Your task to perform on an android device: turn off location history Image 0: 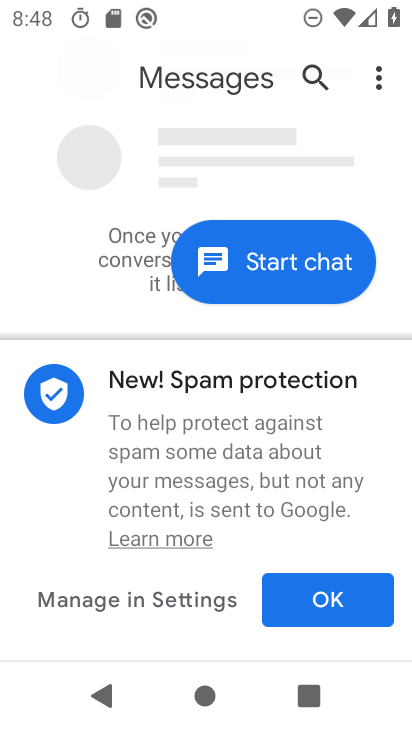
Step 0: press home button
Your task to perform on an android device: turn off location history Image 1: 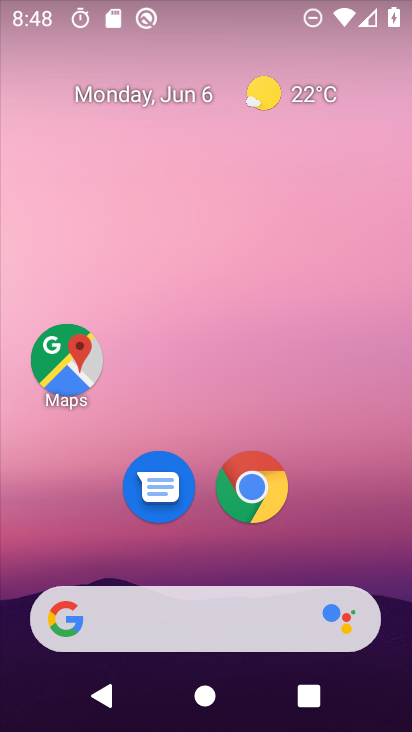
Step 1: drag from (390, 638) to (331, 34)
Your task to perform on an android device: turn off location history Image 2: 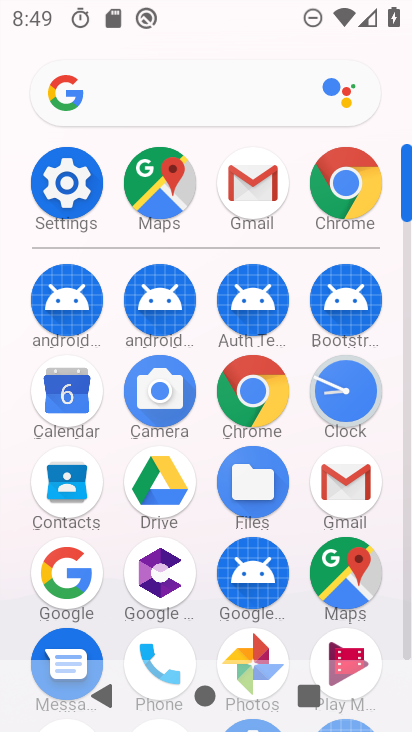
Step 2: click (79, 179)
Your task to perform on an android device: turn off location history Image 3: 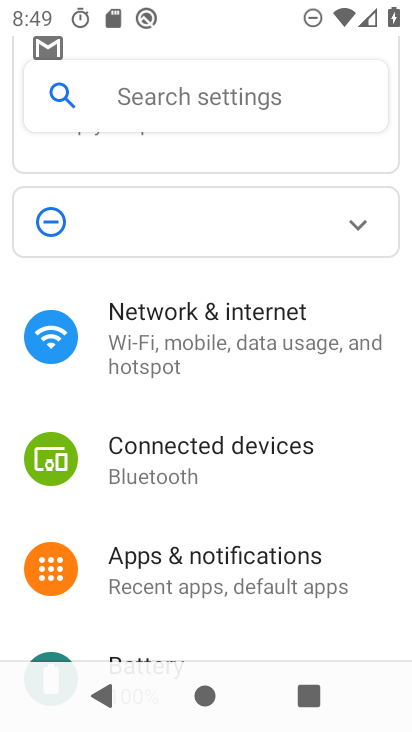
Step 3: drag from (167, 605) to (224, 71)
Your task to perform on an android device: turn off location history Image 4: 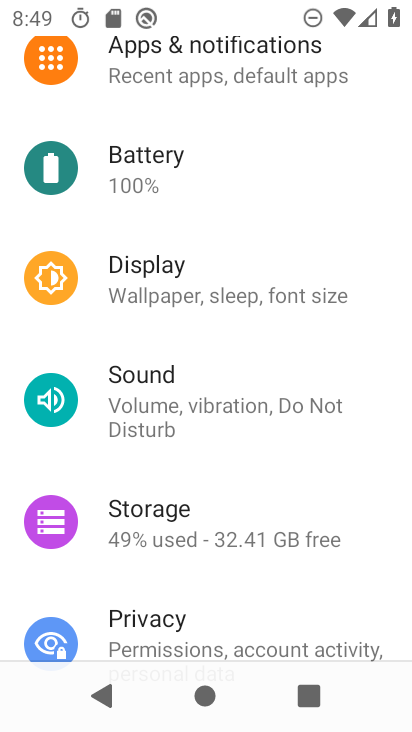
Step 4: drag from (188, 600) to (207, 563)
Your task to perform on an android device: turn off location history Image 5: 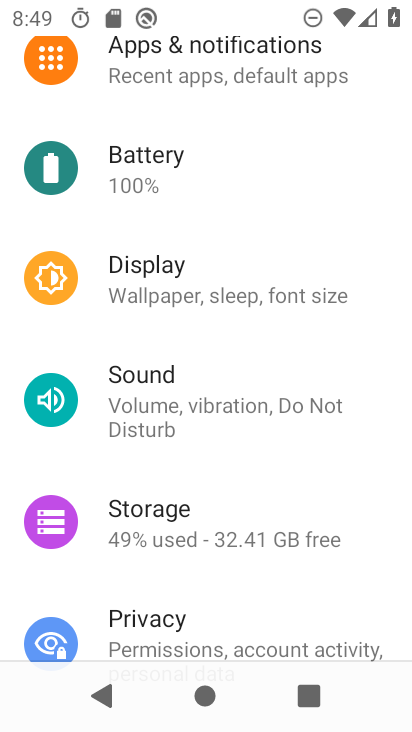
Step 5: drag from (258, 150) to (251, 101)
Your task to perform on an android device: turn off location history Image 6: 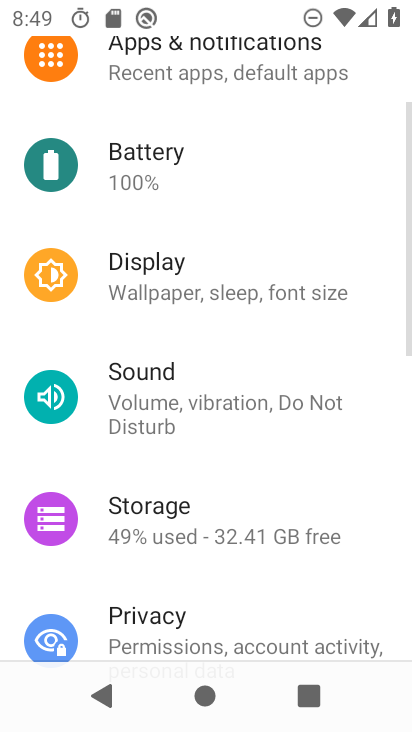
Step 6: drag from (129, 540) to (224, 102)
Your task to perform on an android device: turn off location history Image 7: 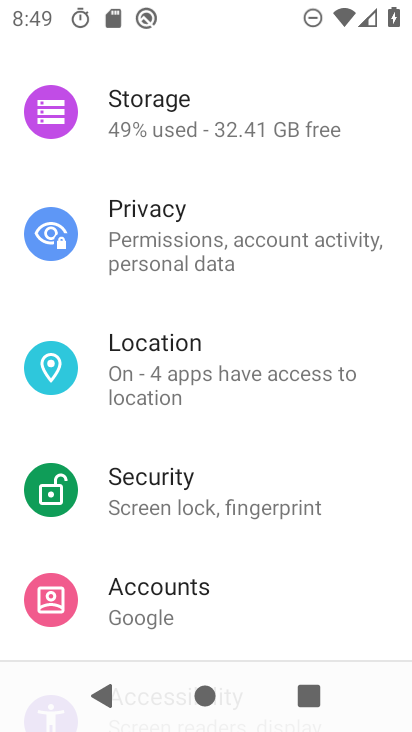
Step 7: click (141, 406)
Your task to perform on an android device: turn off location history Image 8: 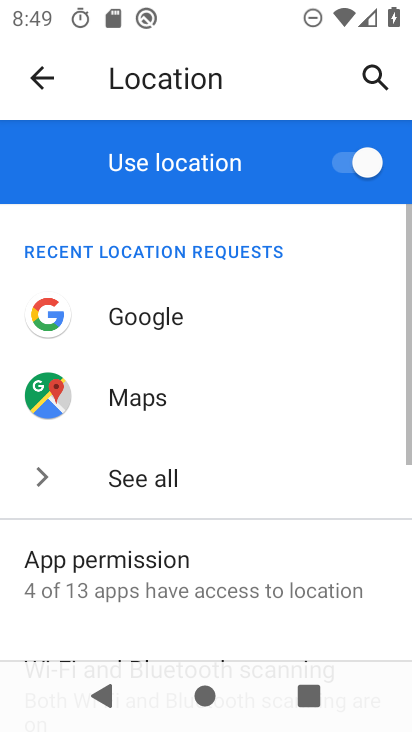
Step 8: drag from (211, 604) to (249, 229)
Your task to perform on an android device: turn off location history Image 9: 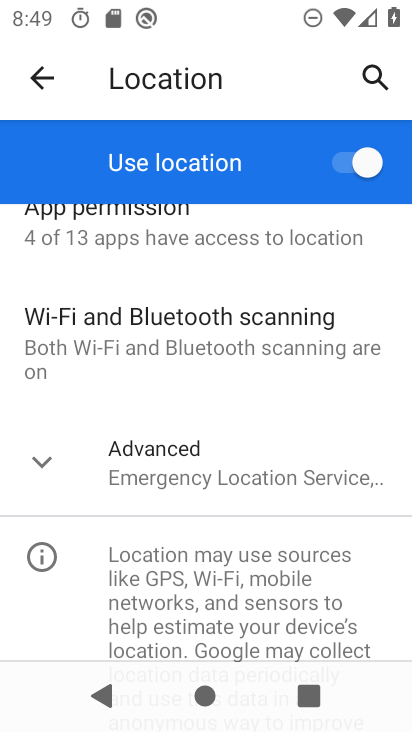
Step 9: click (157, 456)
Your task to perform on an android device: turn off location history Image 10: 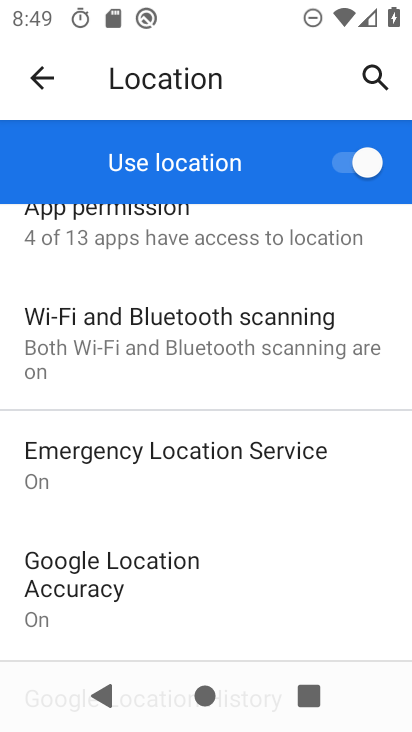
Step 10: drag from (190, 605) to (236, 338)
Your task to perform on an android device: turn off location history Image 11: 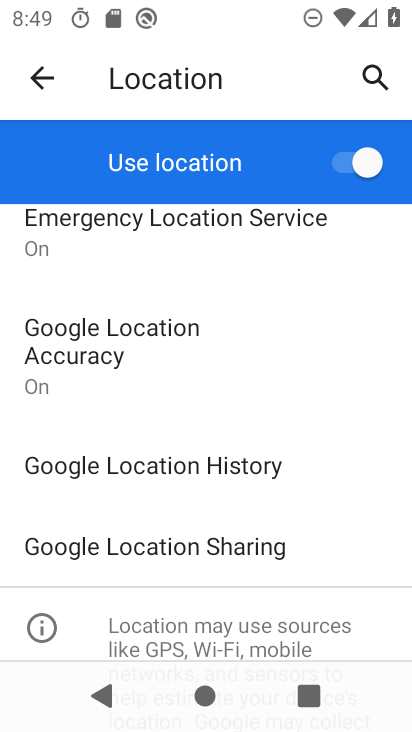
Step 11: click (220, 466)
Your task to perform on an android device: turn off location history Image 12: 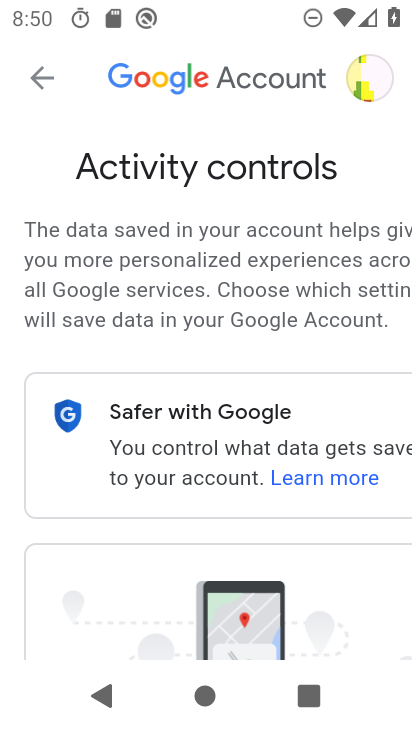
Step 12: drag from (335, 598) to (285, 163)
Your task to perform on an android device: turn off location history Image 13: 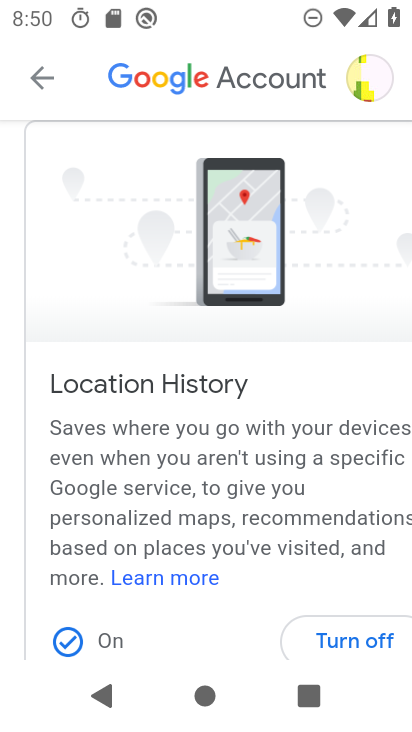
Step 13: click (368, 632)
Your task to perform on an android device: turn off location history Image 14: 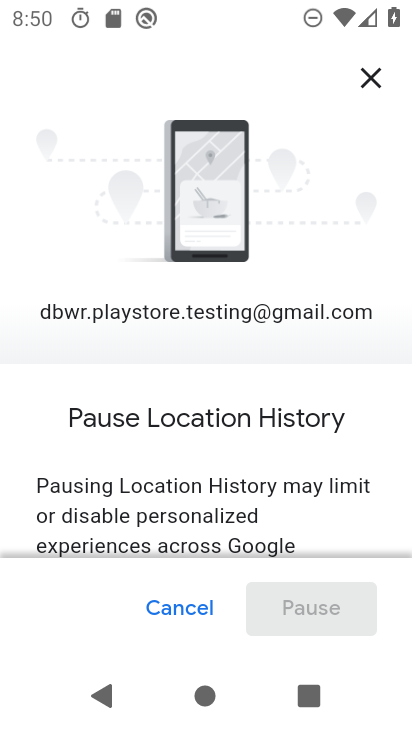
Step 14: click (186, 597)
Your task to perform on an android device: turn off location history Image 15: 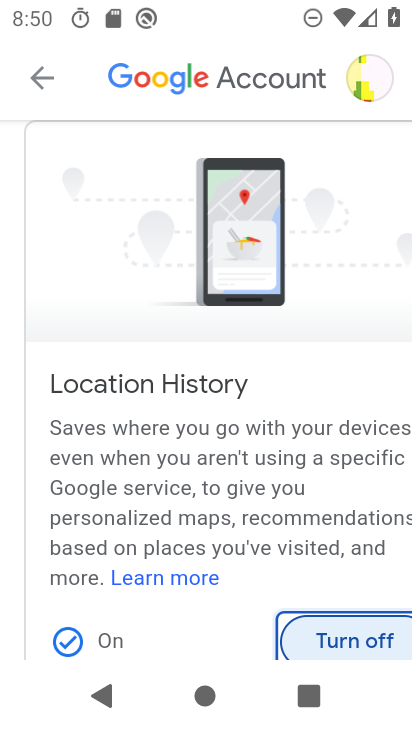
Step 15: task complete